Your task to perform on an android device: Open maps Image 0: 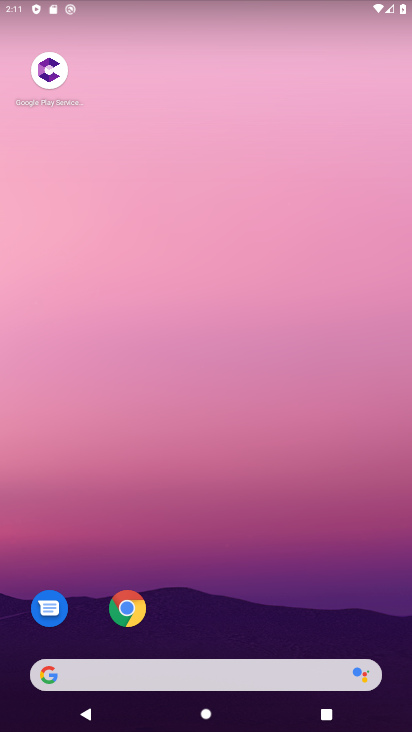
Step 0: drag from (262, 559) to (234, 192)
Your task to perform on an android device: Open maps Image 1: 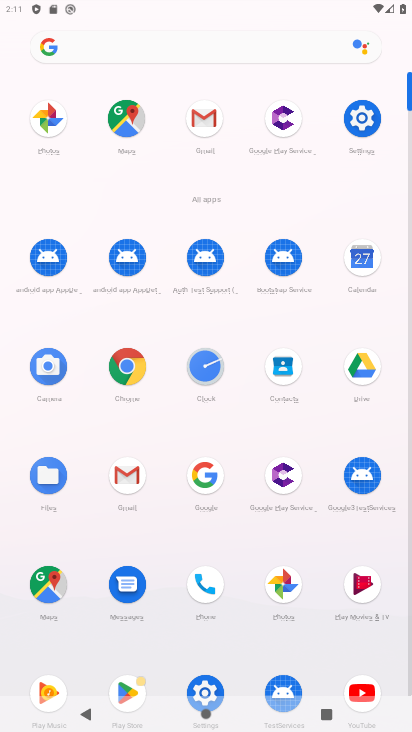
Step 1: click (54, 580)
Your task to perform on an android device: Open maps Image 2: 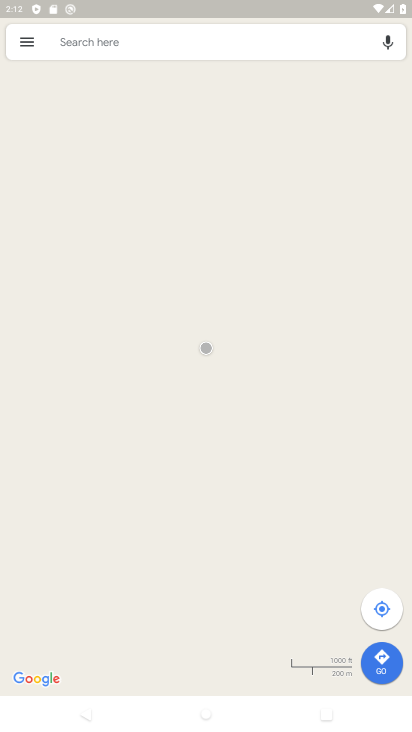
Step 2: task complete